Your task to perform on an android device: open a bookmark in the chrome app Image 0: 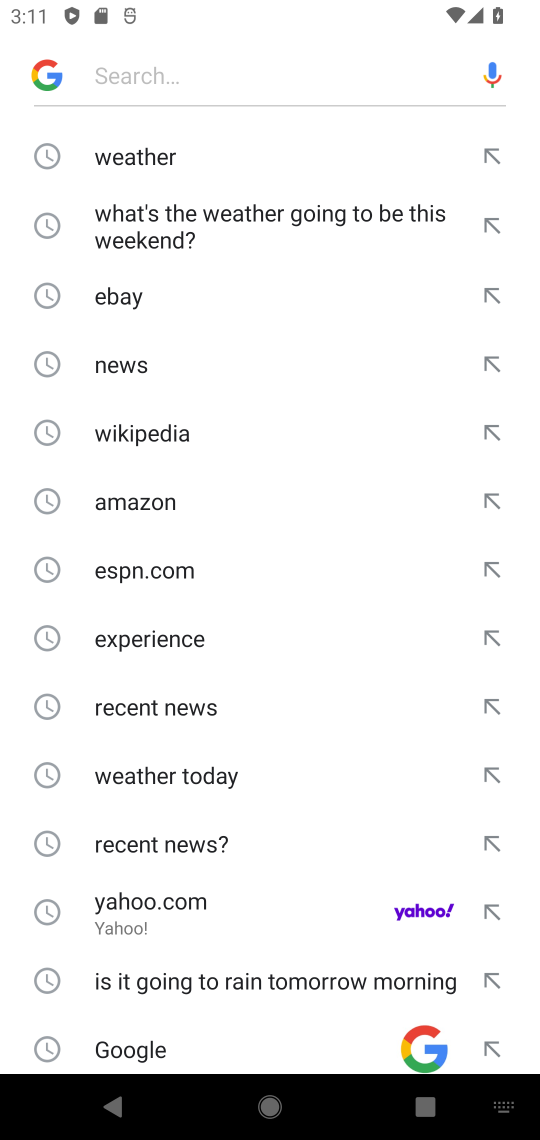
Step 0: press home button
Your task to perform on an android device: open a bookmark in the chrome app Image 1: 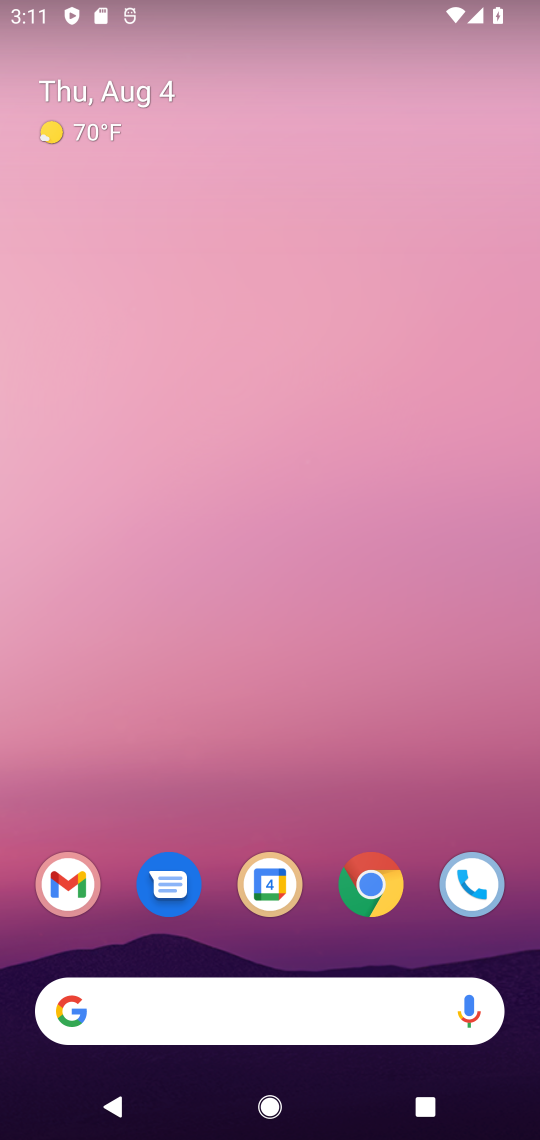
Step 1: click (381, 868)
Your task to perform on an android device: open a bookmark in the chrome app Image 2: 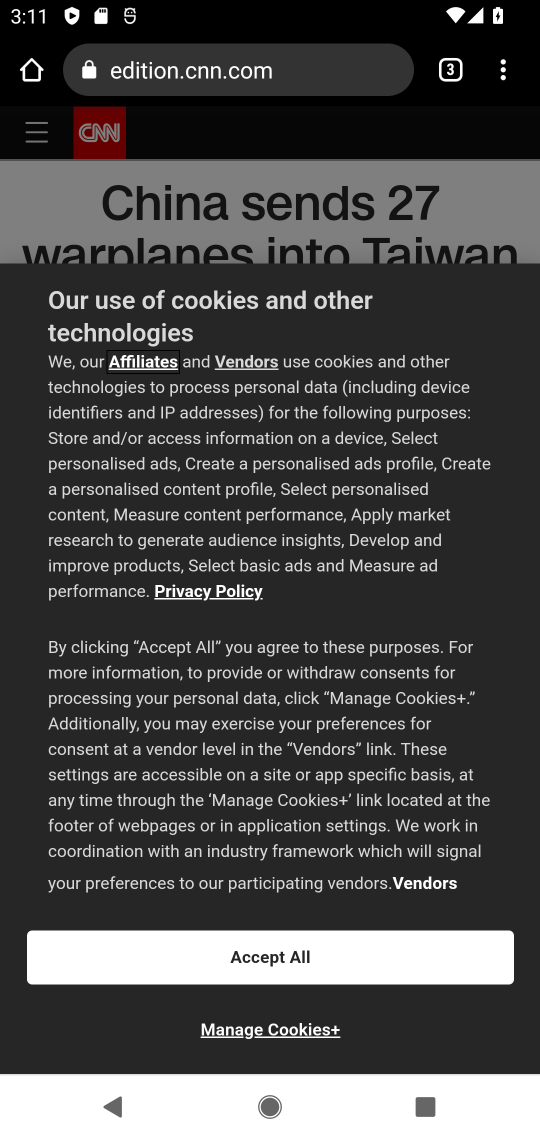
Step 2: click (511, 70)
Your task to perform on an android device: open a bookmark in the chrome app Image 3: 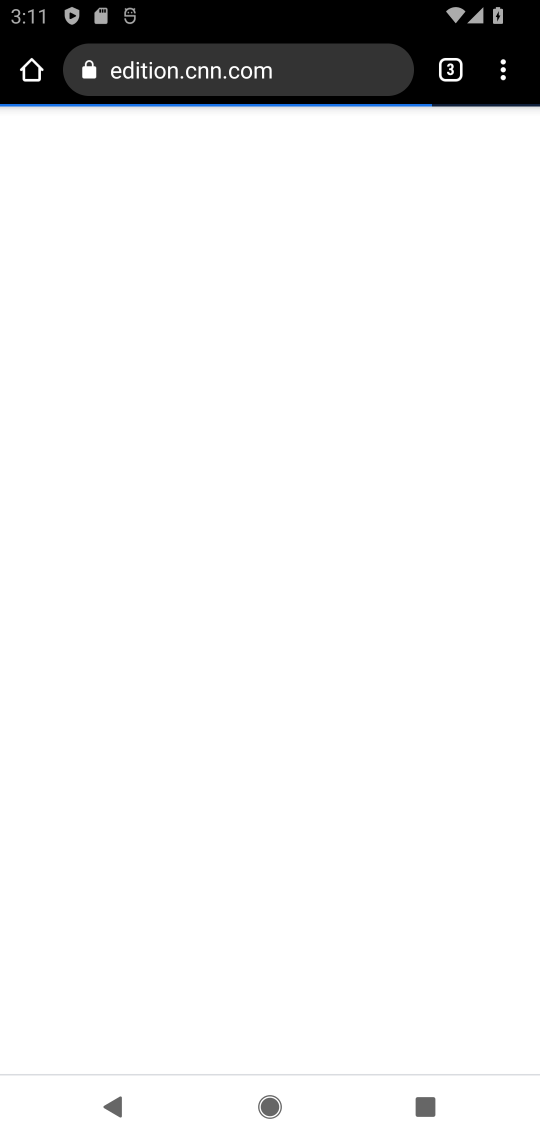
Step 3: click (499, 69)
Your task to perform on an android device: open a bookmark in the chrome app Image 4: 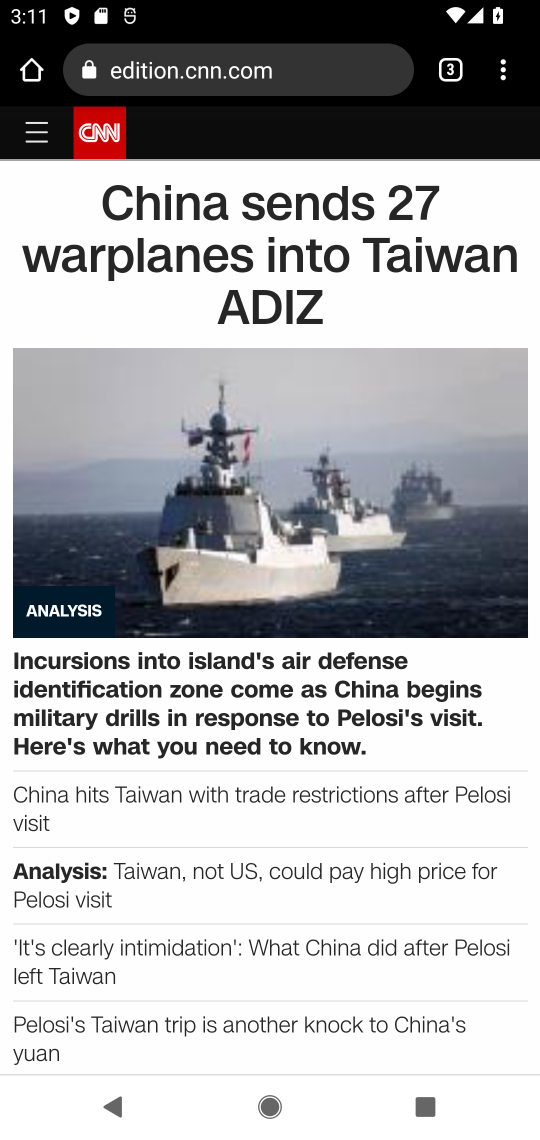
Step 4: click (504, 75)
Your task to perform on an android device: open a bookmark in the chrome app Image 5: 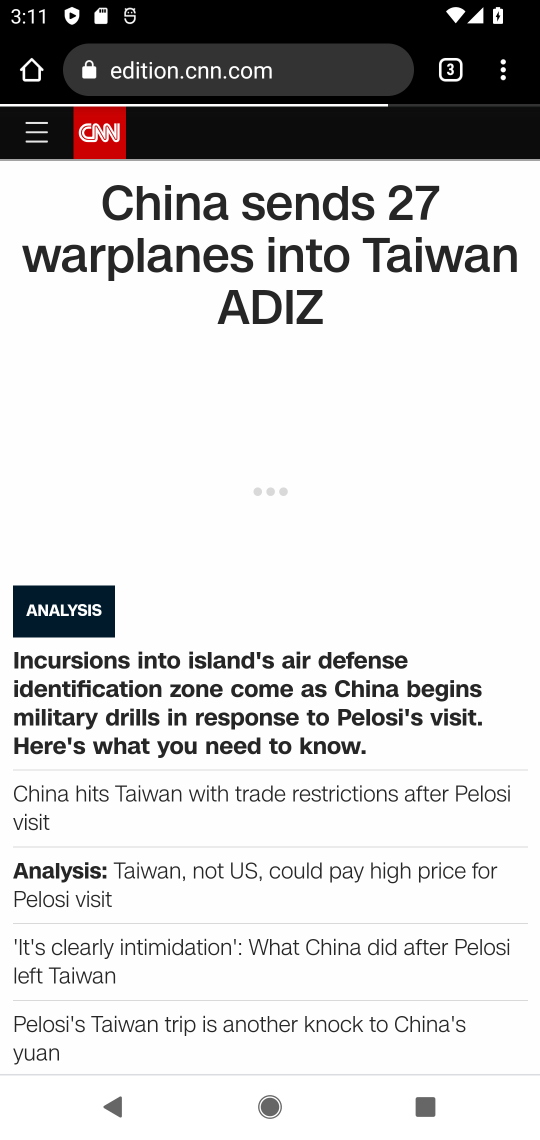
Step 5: click (490, 65)
Your task to perform on an android device: open a bookmark in the chrome app Image 6: 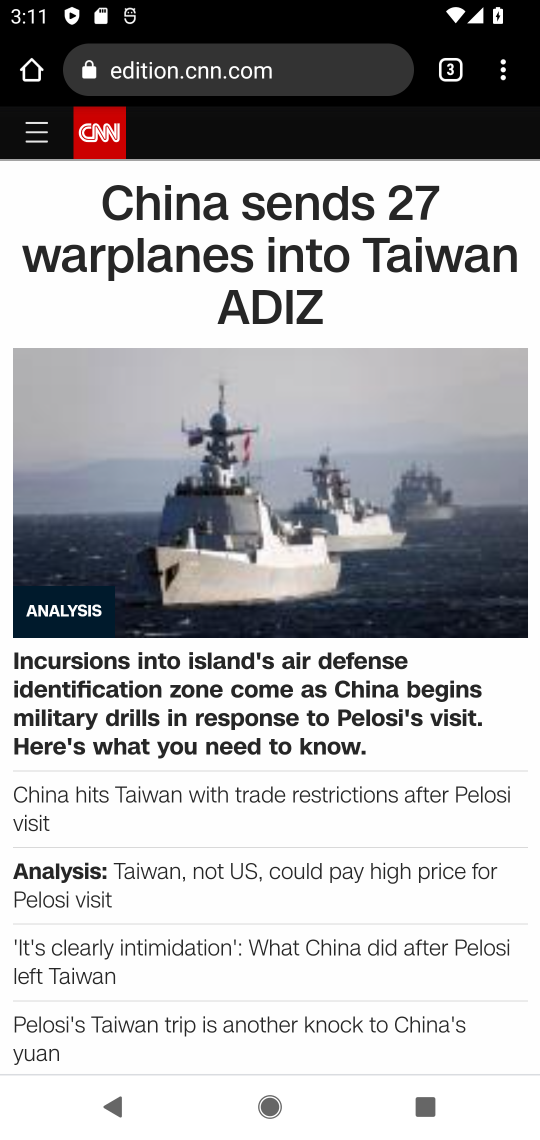
Step 6: click (490, 65)
Your task to perform on an android device: open a bookmark in the chrome app Image 7: 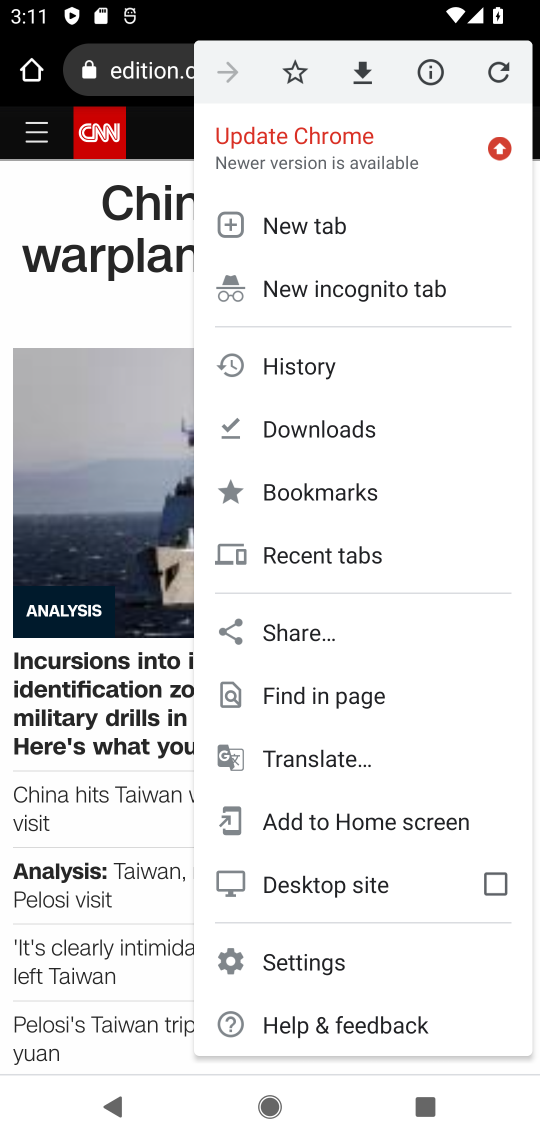
Step 7: click (334, 491)
Your task to perform on an android device: open a bookmark in the chrome app Image 8: 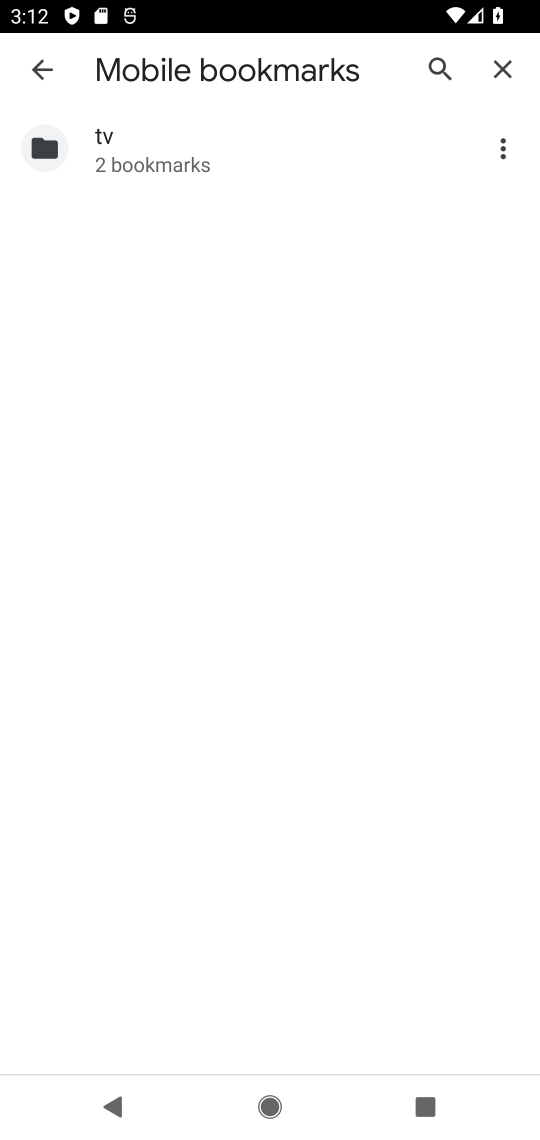
Step 8: task complete